Your task to perform on an android device: turn off location history Image 0: 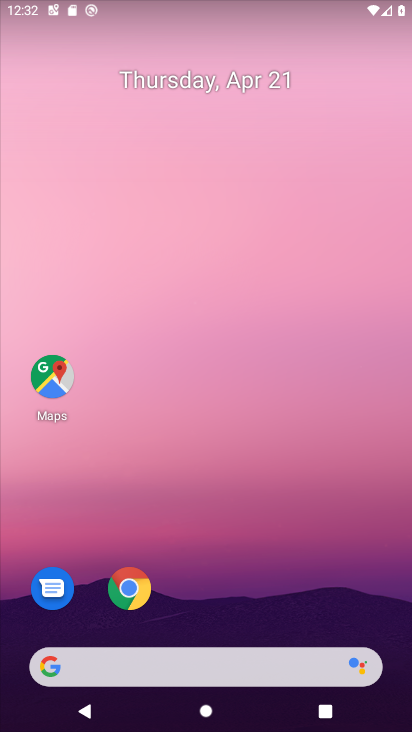
Step 0: drag from (220, 600) to (217, 111)
Your task to perform on an android device: turn off location history Image 1: 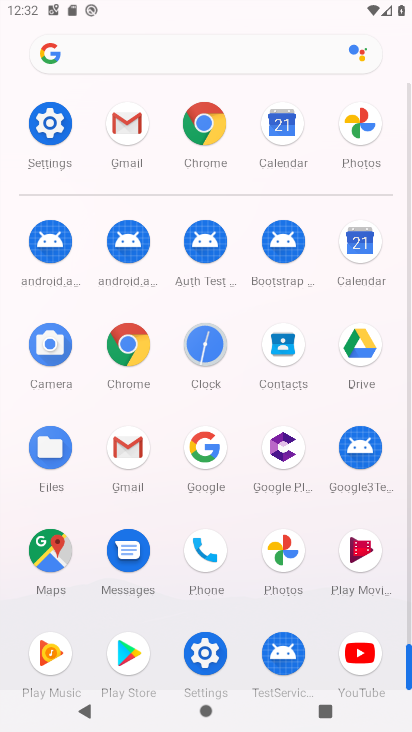
Step 1: click (204, 645)
Your task to perform on an android device: turn off location history Image 2: 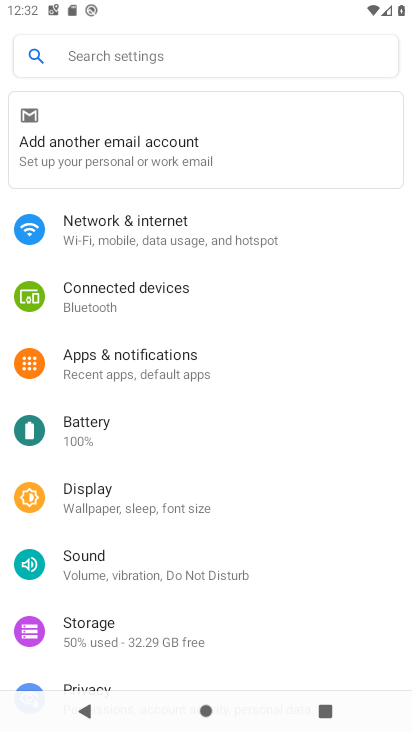
Step 2: drag from (216, 640) to (209, 163)
Your task to perform on an android device: turn off location history Image 3: 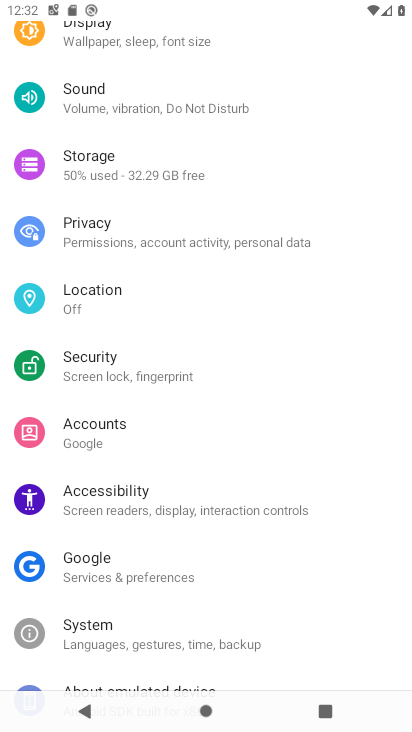
Step 3: click (102, 302)
Your task to perform on an android device: turn off location history Image 4: 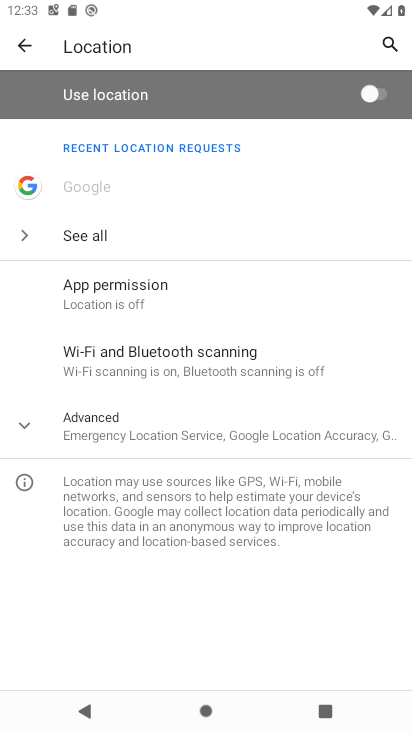
Step 4: click (24, 421)
Your task to perform on an android device: turn off location history Image 5: 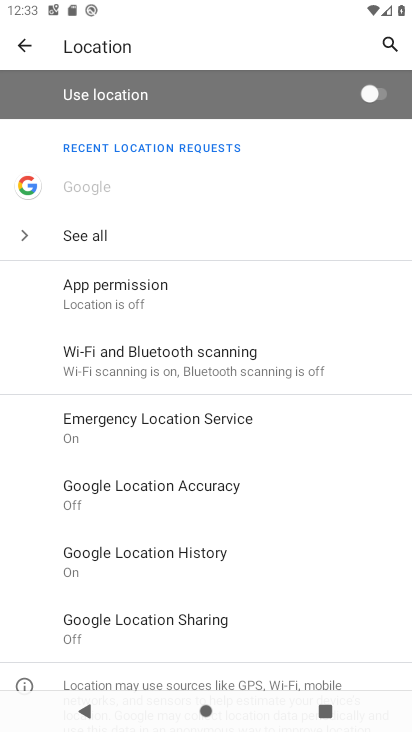
Step 5: click (109, 559)
Your task to perform on an android device: turn off location history Image 6: 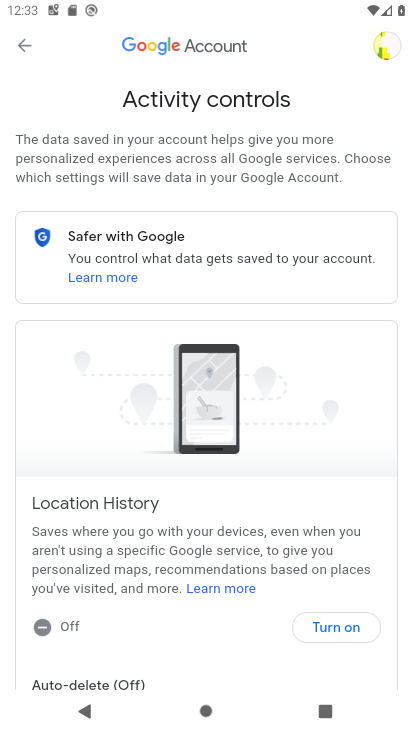
Step 6: task complete